Your task to perform on an android device: Is it going to rain tomorrow? Image 0: 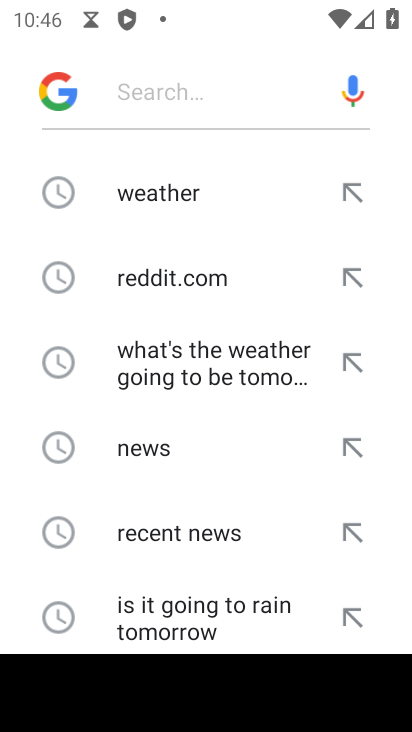
Step 0: press home button
Your task to perform on an android device: Is it going to rain tomorrow? Image 1: 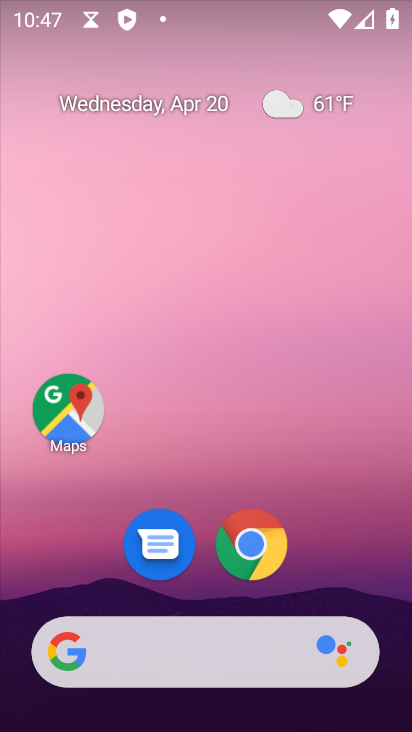
Step 1: click (291, 96)
Your task to perform on an android device: Is it going to rain tomorrow? Image 2: 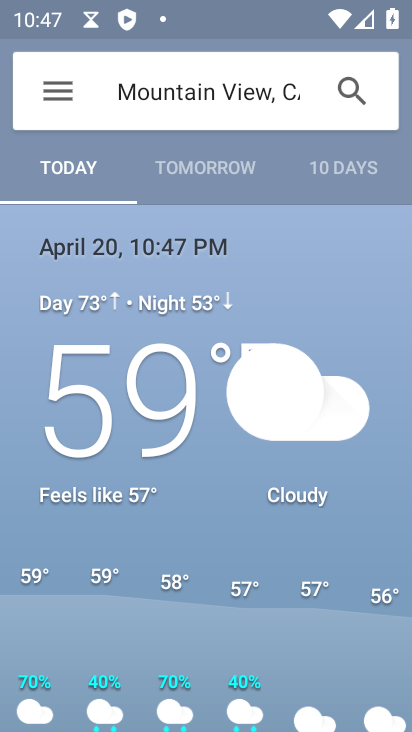
Step 2: task complete